Your task to perform on an android device: empty trash in the gmail app Image 0: 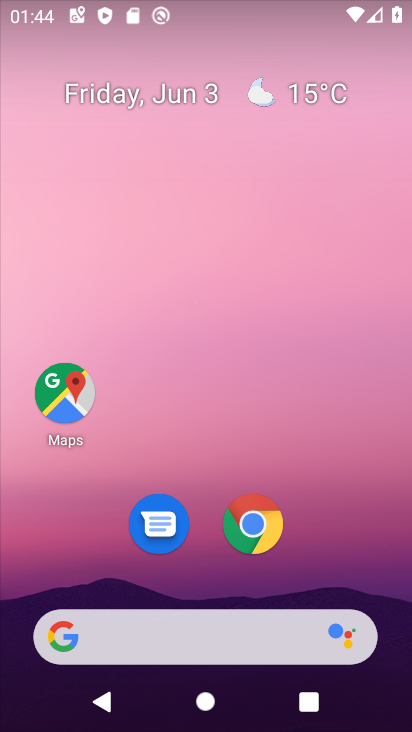
Step 0: drag from (322, 541) to (319, 10)
Your task to perform on an android device: empty trash in the gmail app Image 1: 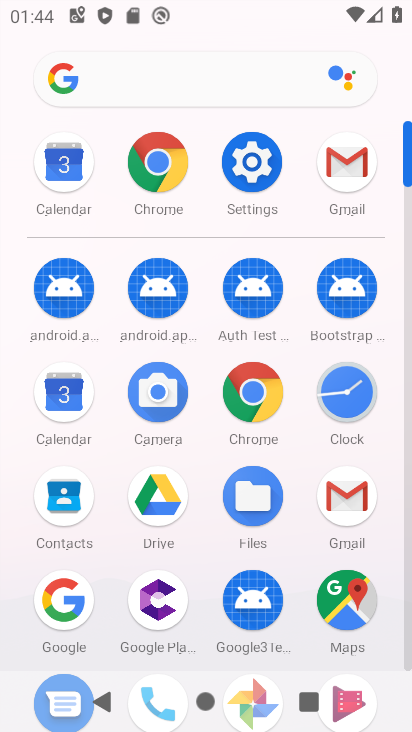
Step 1: click (340, 155)
Your task to perform on an android device: empty trash in the gmail app Image 2: 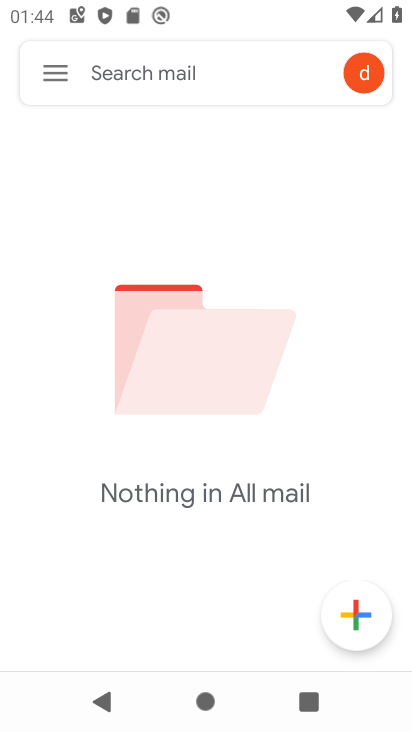
Step 2: click (61, 71)
Your task to perform on an android device: empty trash in the gmail app Image 3: 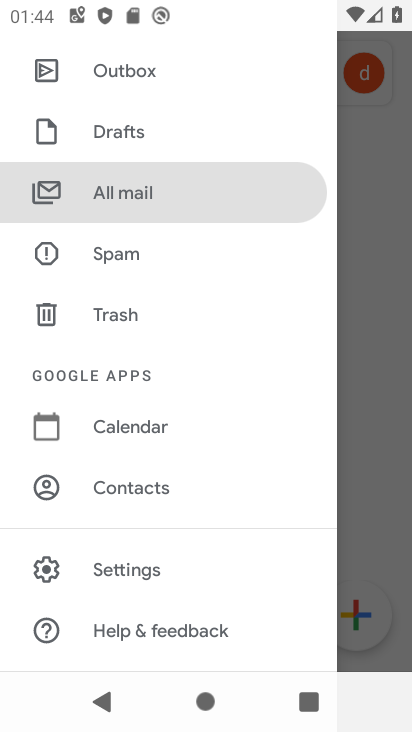
Step 3: click (117, 301)
Your task to perform on an android device: empty trash in the gmail app Image 4: 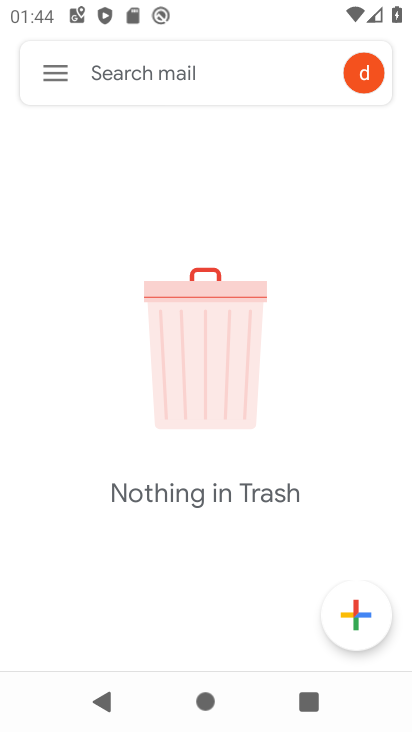
Step 4: task complete